Your task to perform on an android device: Do I have any events this weekend? Image 0: 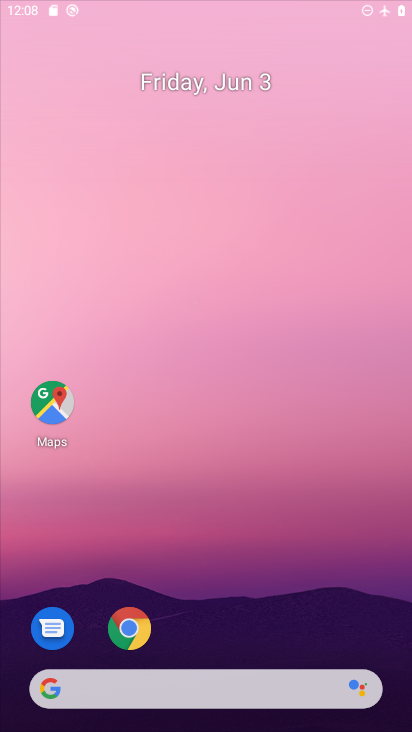
Step 0: drag from (265, 624) to (189, 210)
Your task to perform on an android device: Do I have any events this weekend? Image 1: 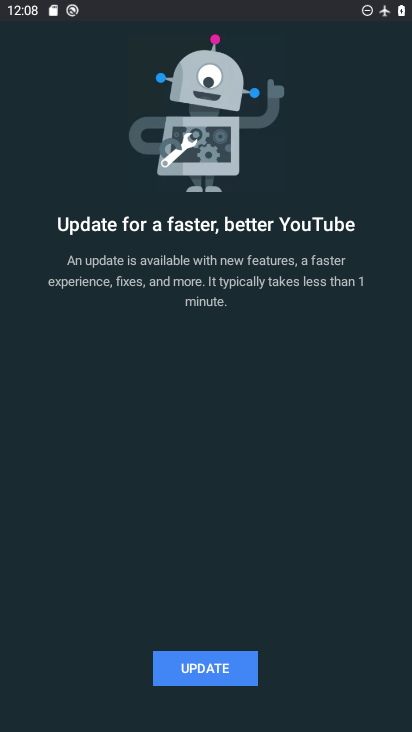
Step 1: press home button
Your task to perform on an android device: Do I have any events this weekend? Image 2: 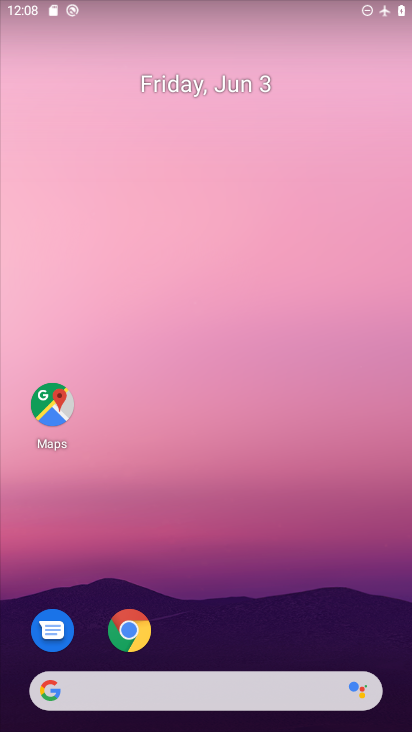
Step 2: drag from (241, 625) to (183, 149)
Your task to perform on an android device: Do I have any events this weekend? Image 3: 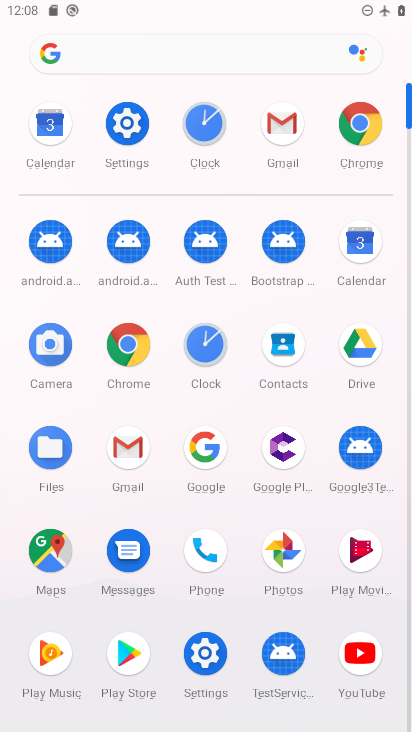
Step 3: click (360, 257)
Your task to perform on an android device: Do I have any events this weekend? Image 4: 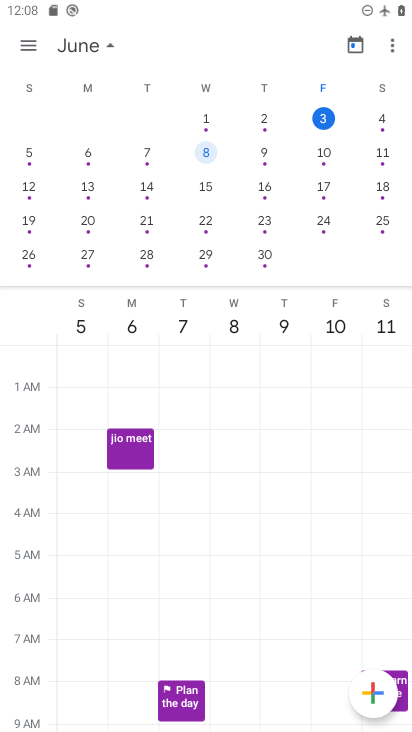
Step 4: click (37, 48)
Your task to perform on an android device: Do I have any events this weekend? Image 5: 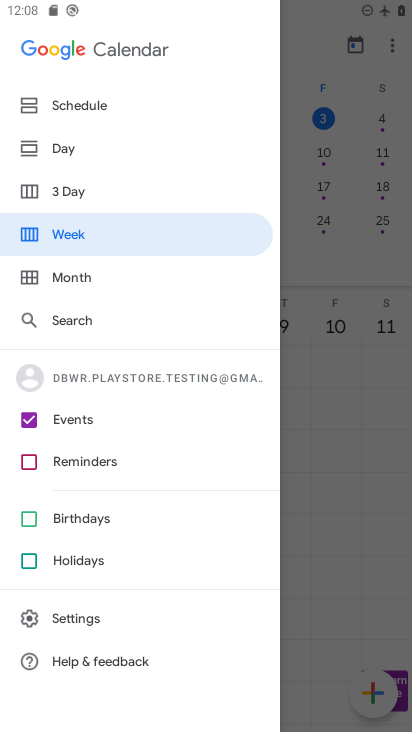
Step 5: click (95, 193)
Your task to perform on an android device: Do I have any events this weekend? Image 6: 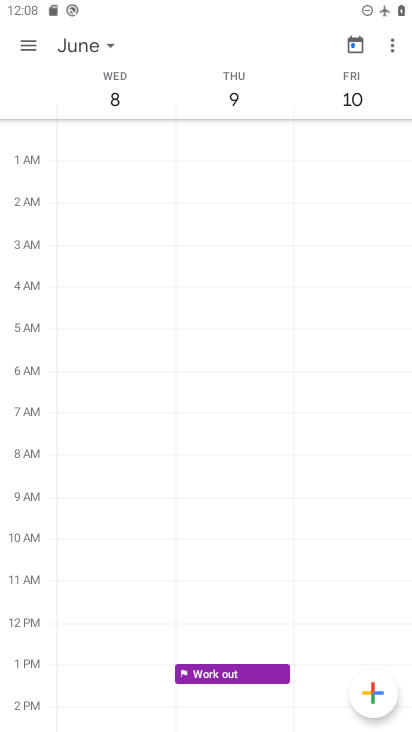
Step 6: click (93, 48)
Your task to perform on an android device: Do I have any events this weekend? Image 7: 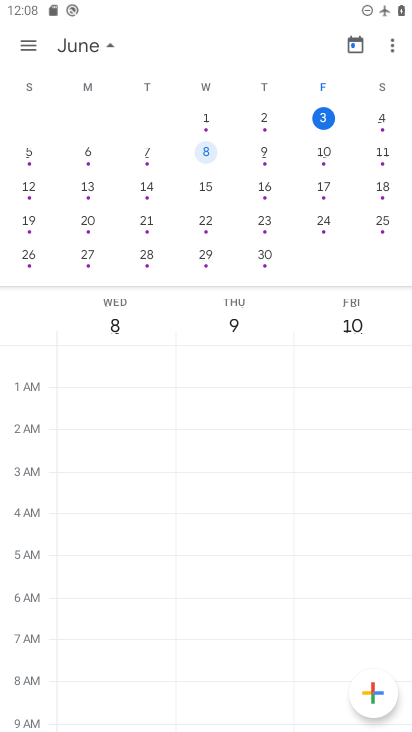
Step 7: click (387, 120)
Your task to perform on an android device: Do I have any events this weekend? Image 8: 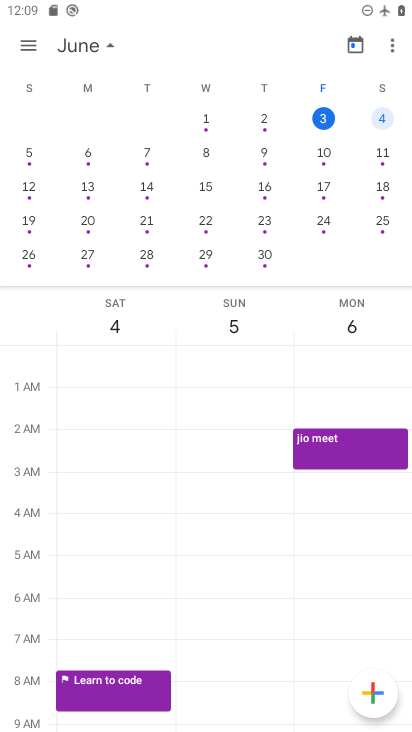
Step 8: task complete